Your task to perform on an android device: add a contact Image 0: 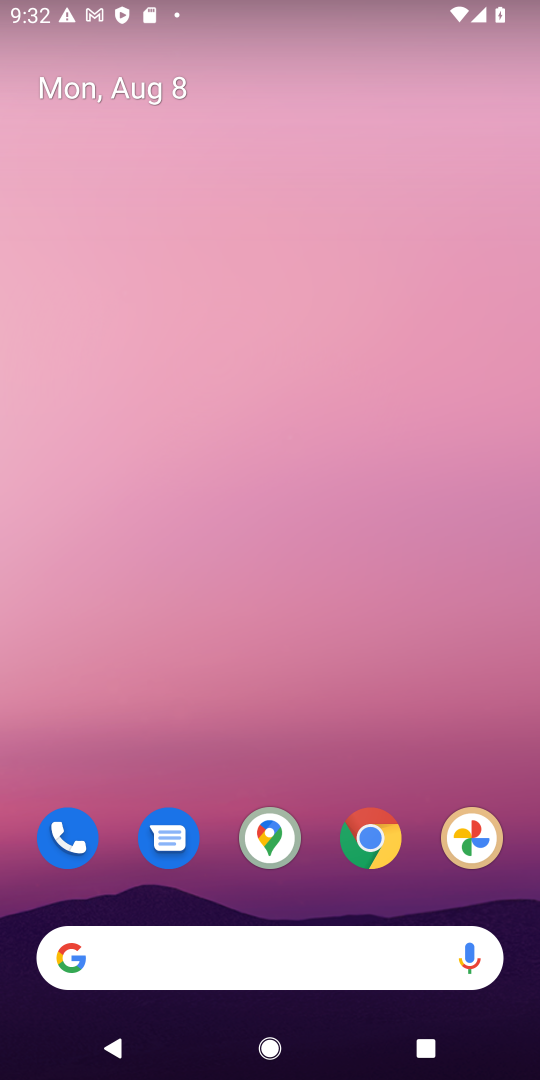
Step 0: drag from (415, 560) to (510, 125)
Your task to perform on an android device: add a contact Image 1: 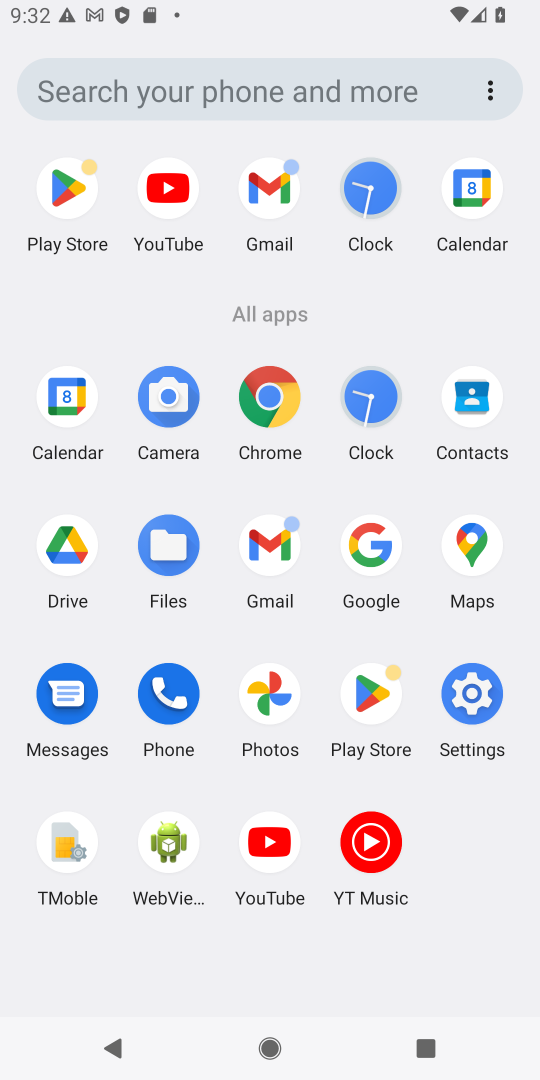
Step 1: click (477, 408)
Your task to perform on an android device: add a contact Image 2: 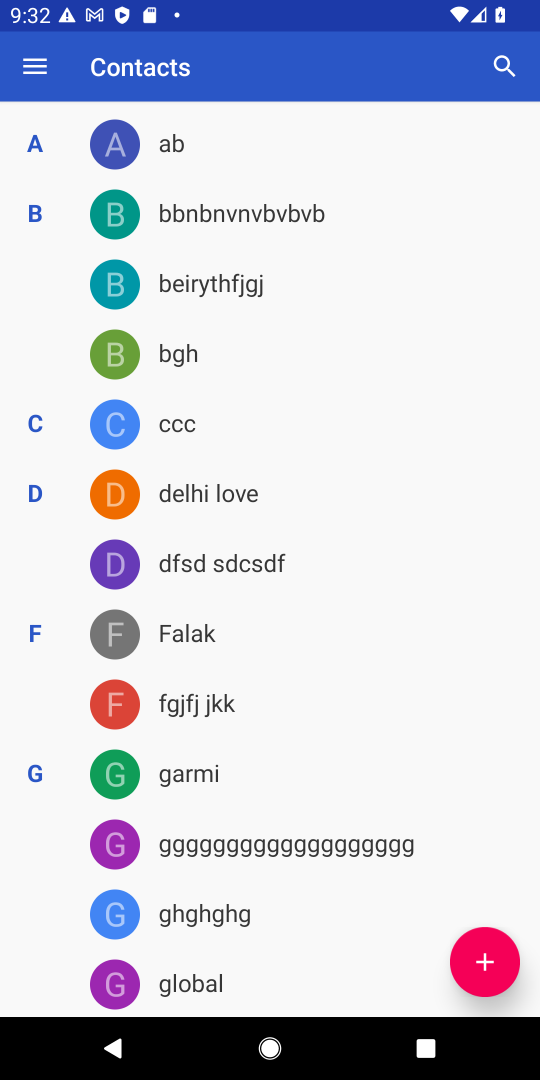
Step 2: click (495, 969)
Your task to perform on an android device: add a contact Image 3: 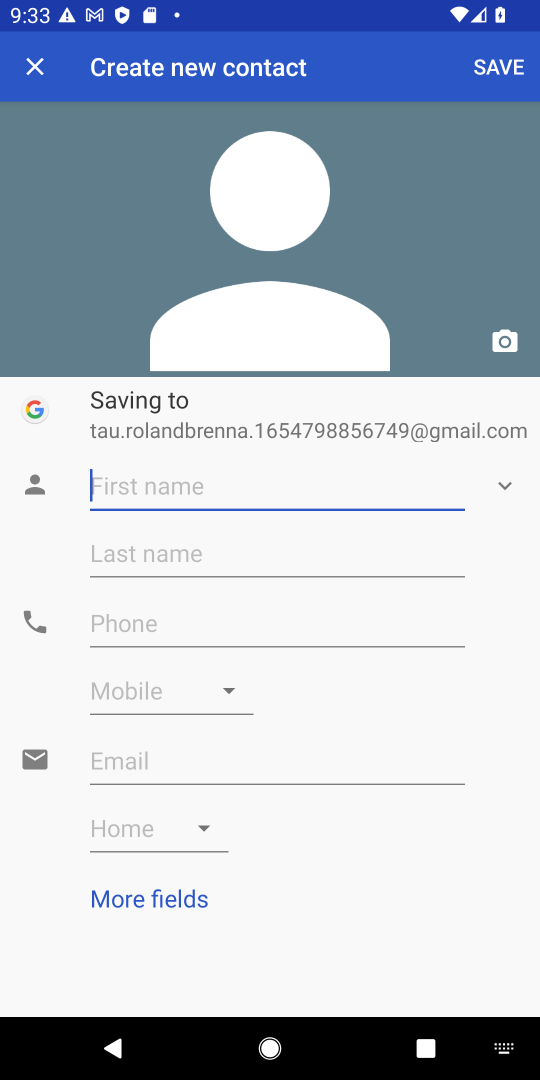
Step 3: press enter
Your task to perform on an android device: add a contact Image 4: 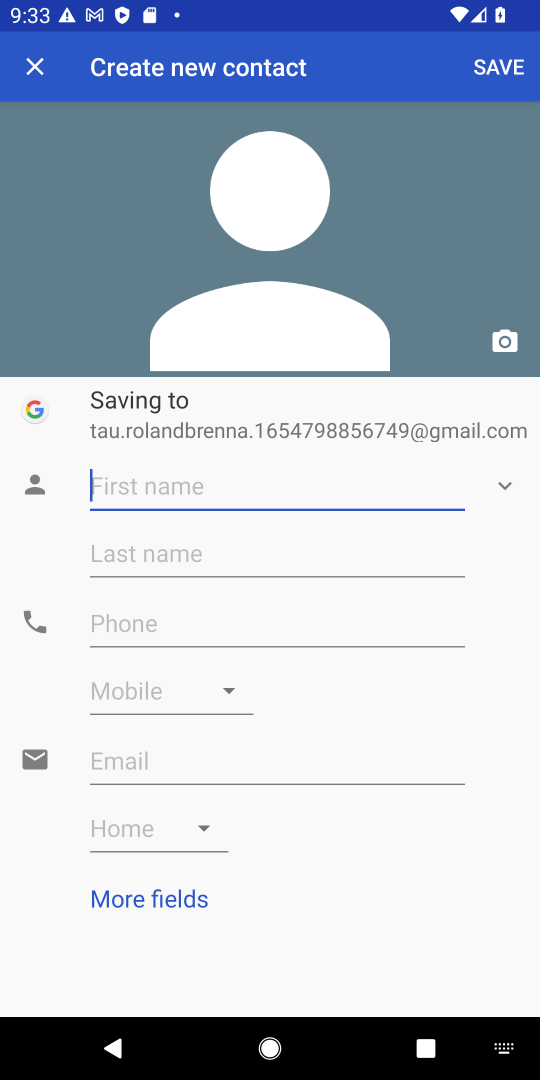
Step 4: type "hopt"
Your task to perform on an android device: add a contact Image 5: 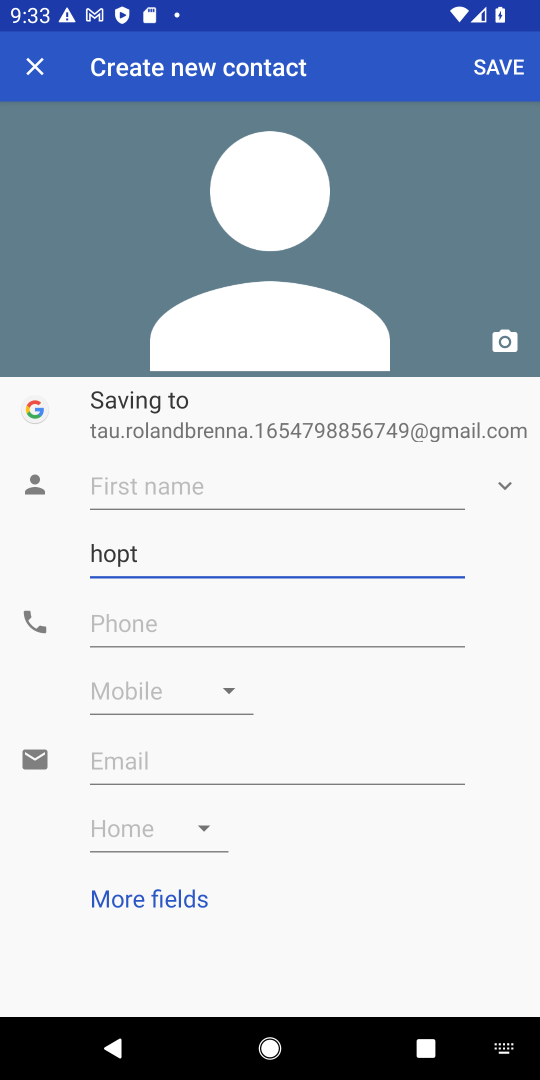
Step 5: click (494, 61)
Your task to perform on an android device: add a contact Image 6: 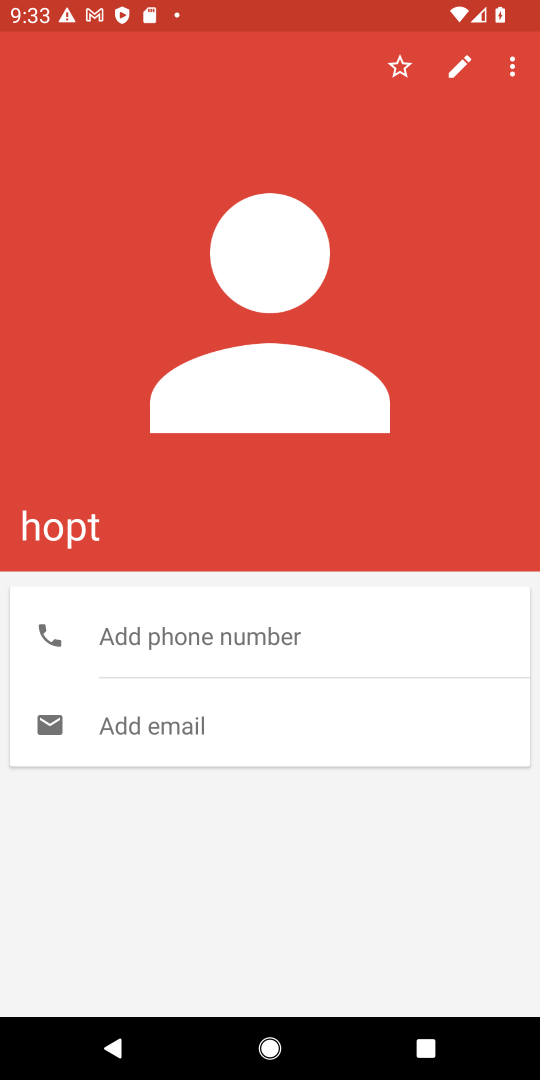
Step 6: task complete